Your task to perform on an android device: Open settings Image 0: 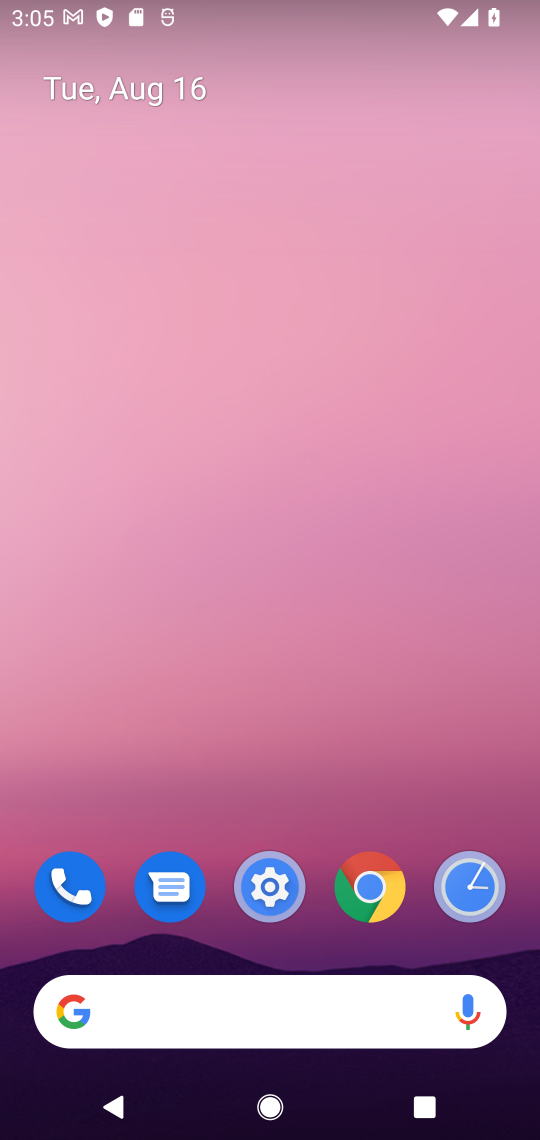
Step 0: drag from (344, 695) to (329, 2)
Your task to perform on an android device: Open settings Image 1: 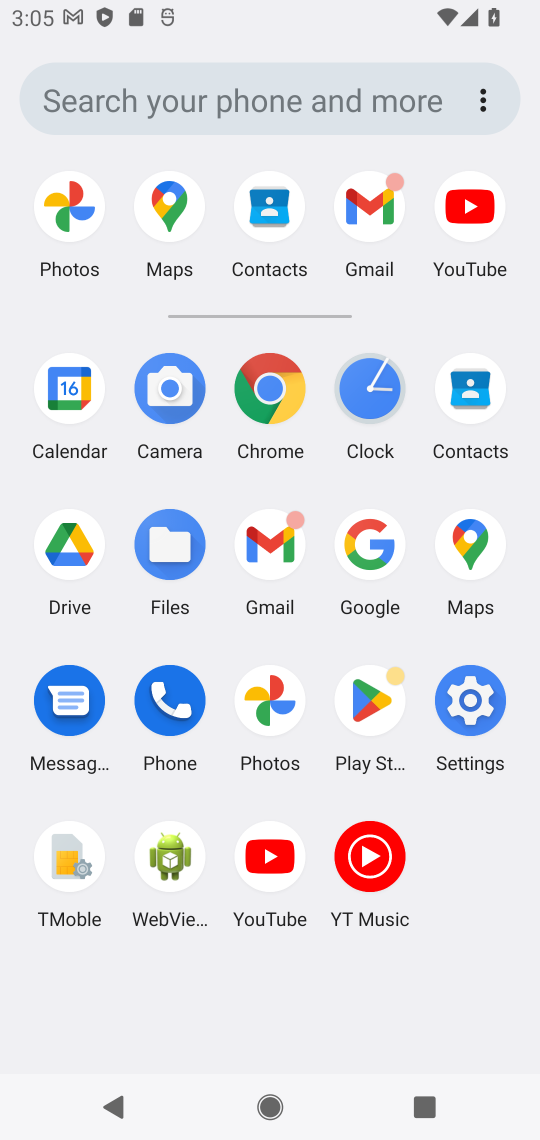
Step 1: click (476, 690)
Your task to perform on an android device: Open settings Image 2: 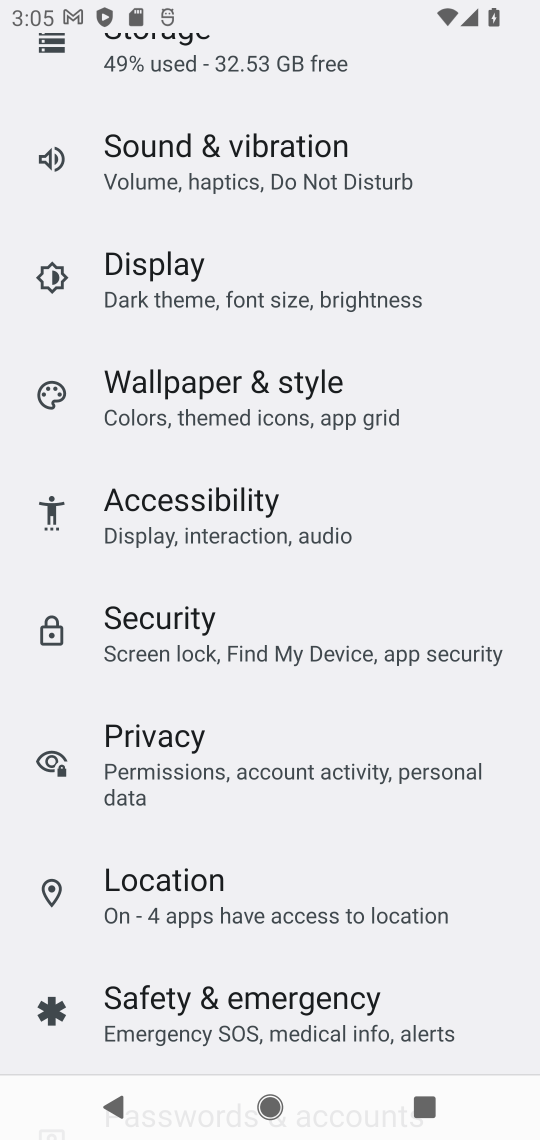
Step 2: task complete